Your task to perform on an android device: remove spam from my inbox in the gmail app Image 0: 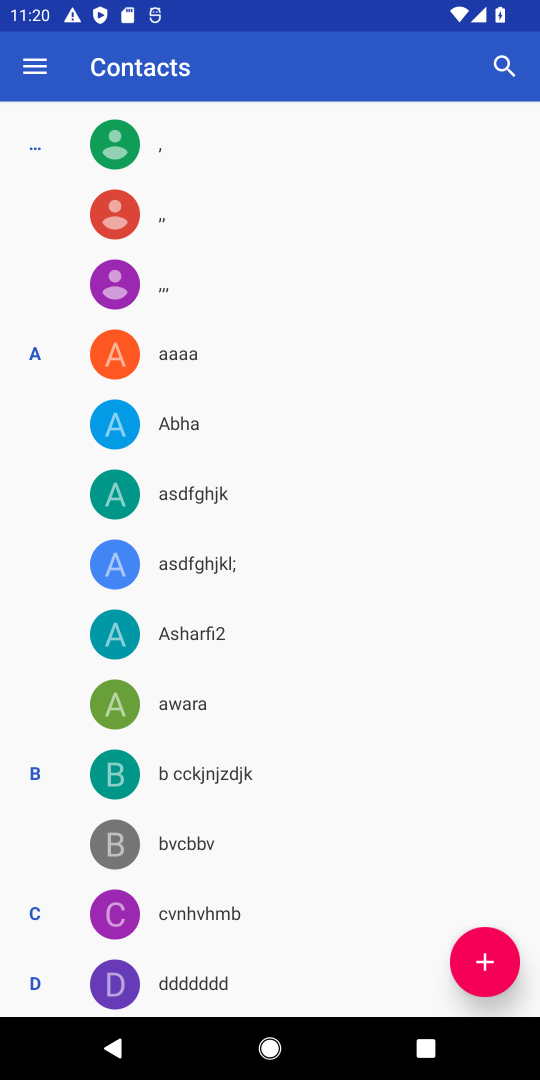
Step 0: press home button
Your task to perform on an android device: remove spam from my inbox in the gmail app Image 1: 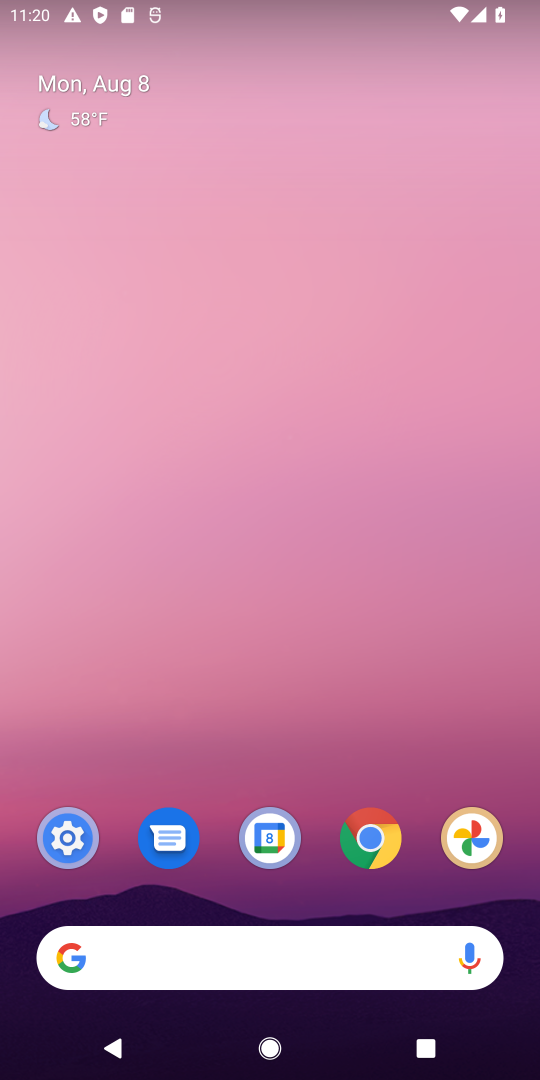
Step 1: drag from (331, 900) to (309, 340)
Your task to perform on an android device: remove spam from my inbox in the gmail app Image 2: 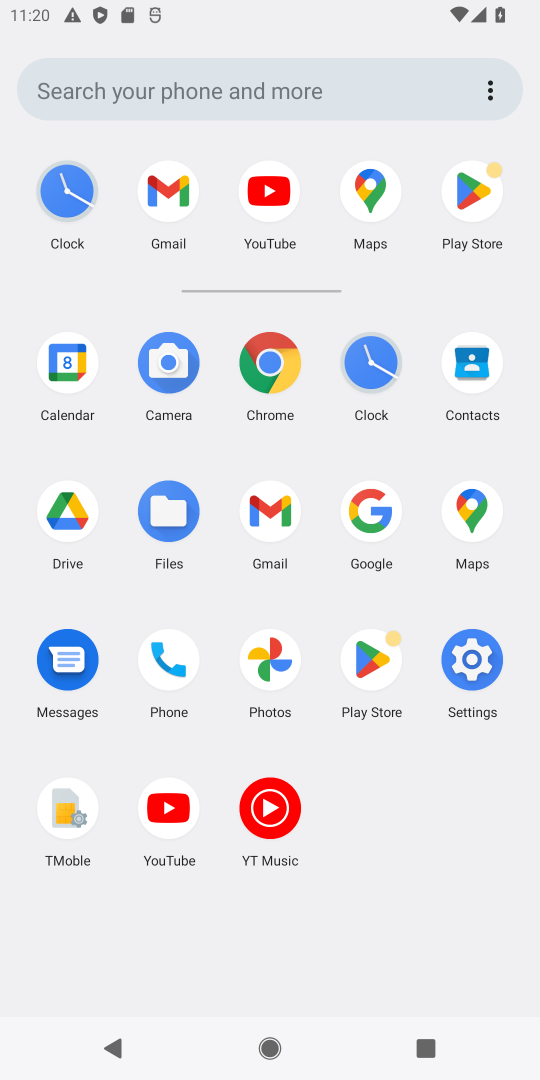
Step 2: click (171, 191)
Your task to perform on an android device: remove spam from my inbox in the gmail app Image 3: 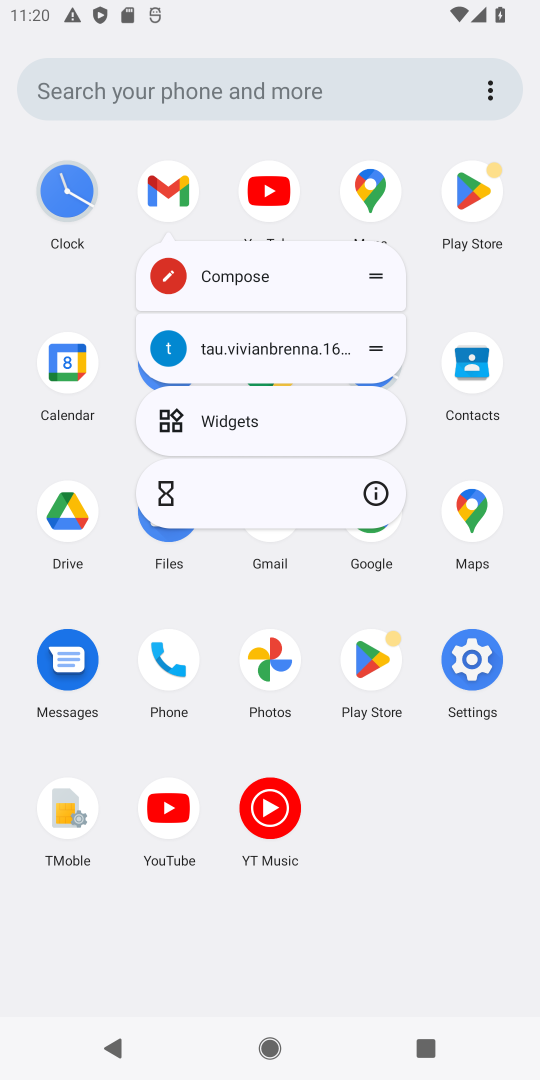
Step 3: click (171, 189)
Your task to perform on an android device: remove spam from my inbox in the gmail app Image 4: 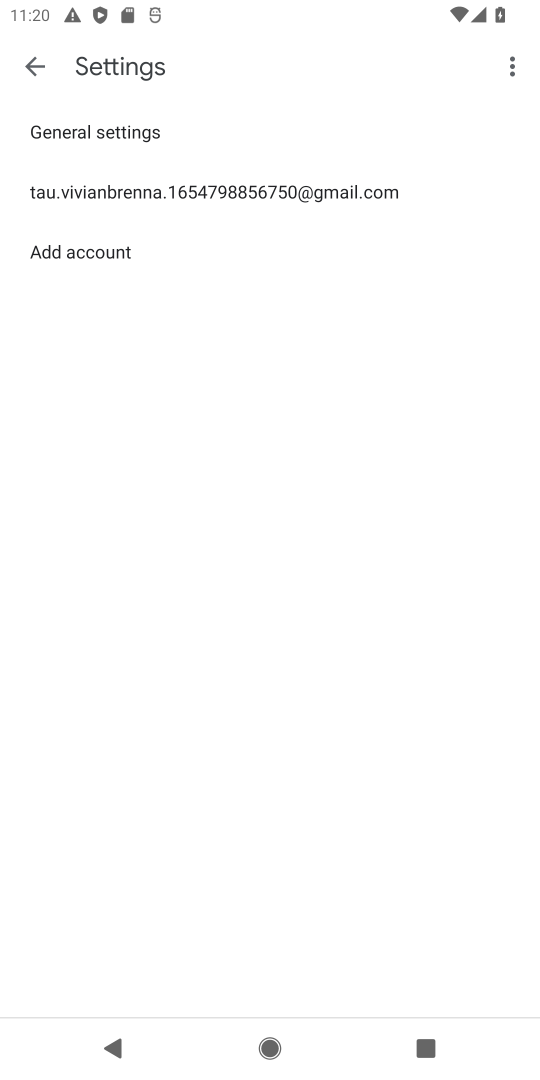
Step 4: click (40, 61)
Your task to perform on an android device: remove spam from my inbox in the gmail app Image 5: 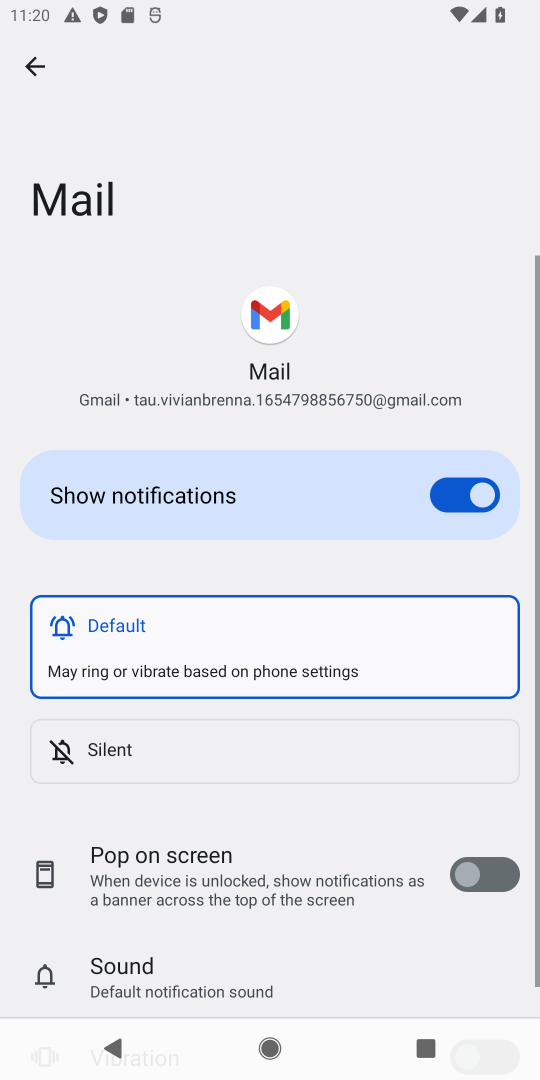
Step 5: click (39, 67)
Your task to perform on an android device: remove spam from my inbox in the gmail app Image 6: 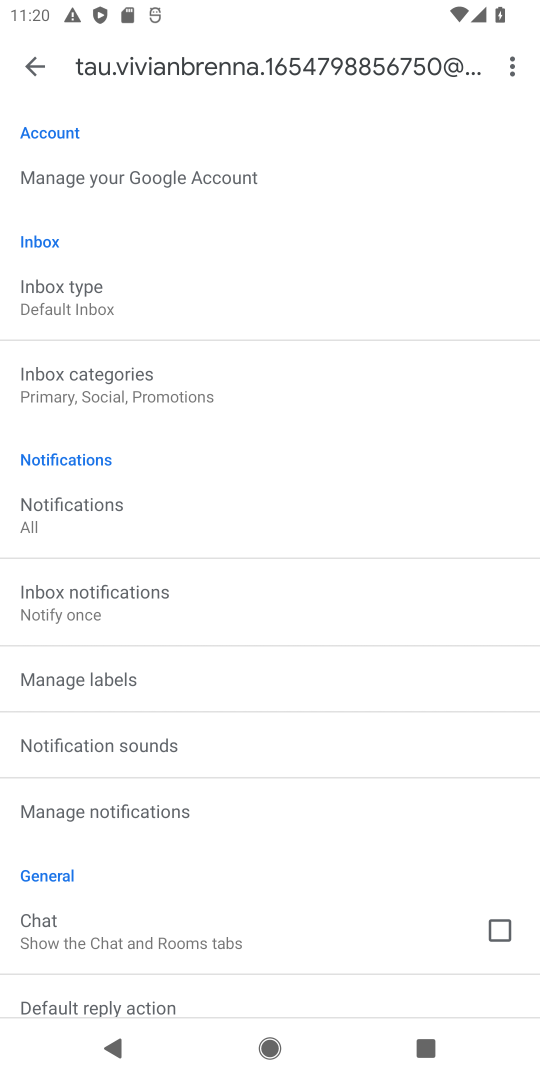
Step 6: click (39, 66)
Your task to perform on an android device: remove spam from my inbox in the gmail app Image 7: 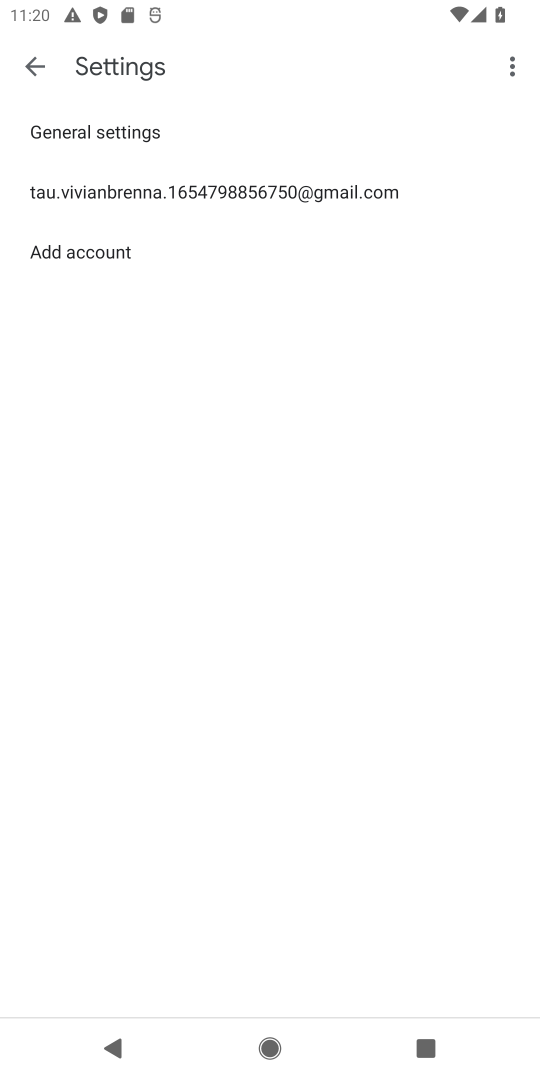
Step 7: click (39, 66)
Your task to perform on an android device: remove spam from my inbox in the gmail app Image 8: 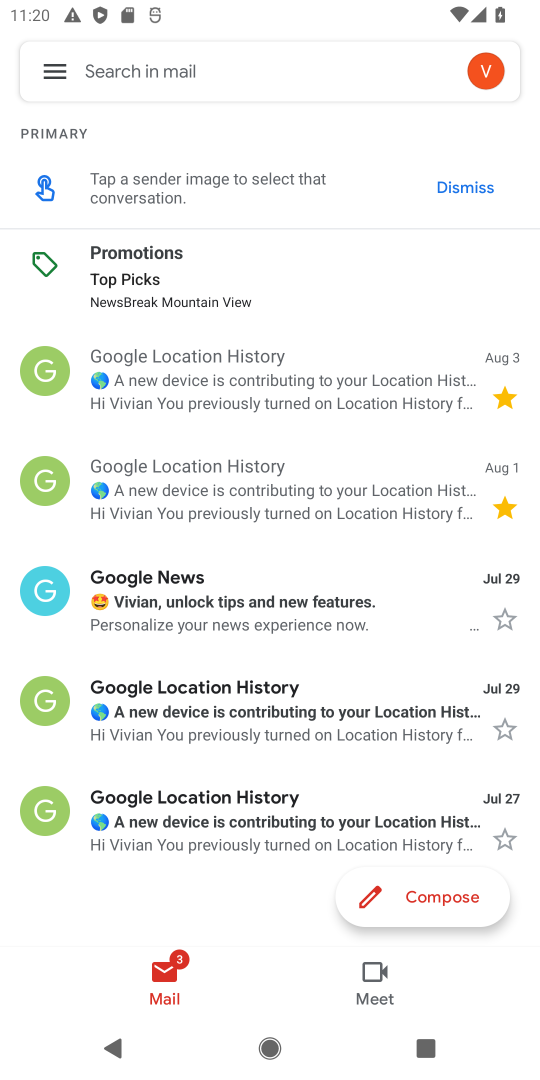
Step 8: click (44, 69)
Your task to perform on an android device: remove spam from my inbox in the gmail app Image 9: 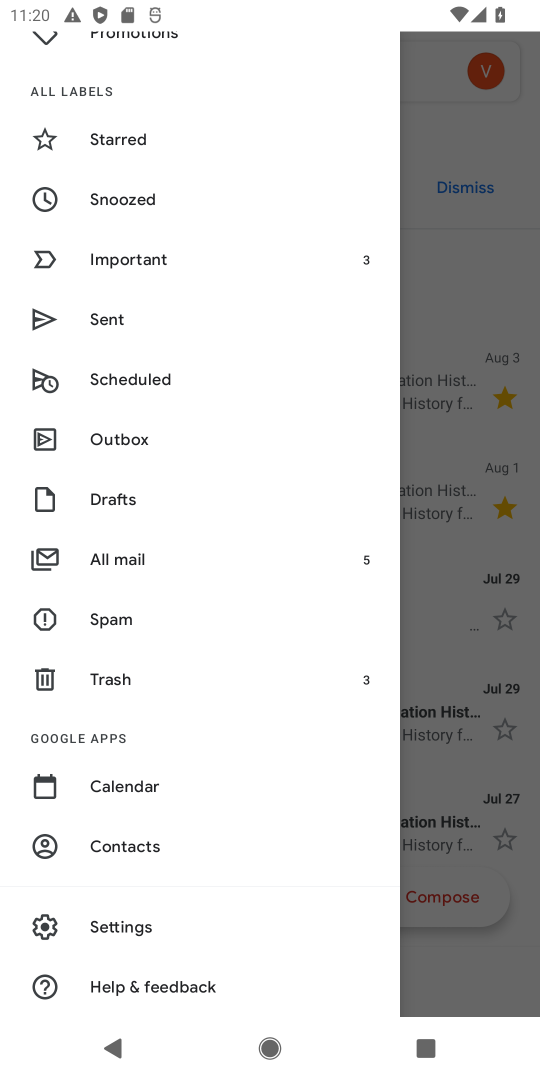
Step 9: click (119, 620)
Your task to perform on an android device: remove spam from my inbox in the gmail app Image 10: 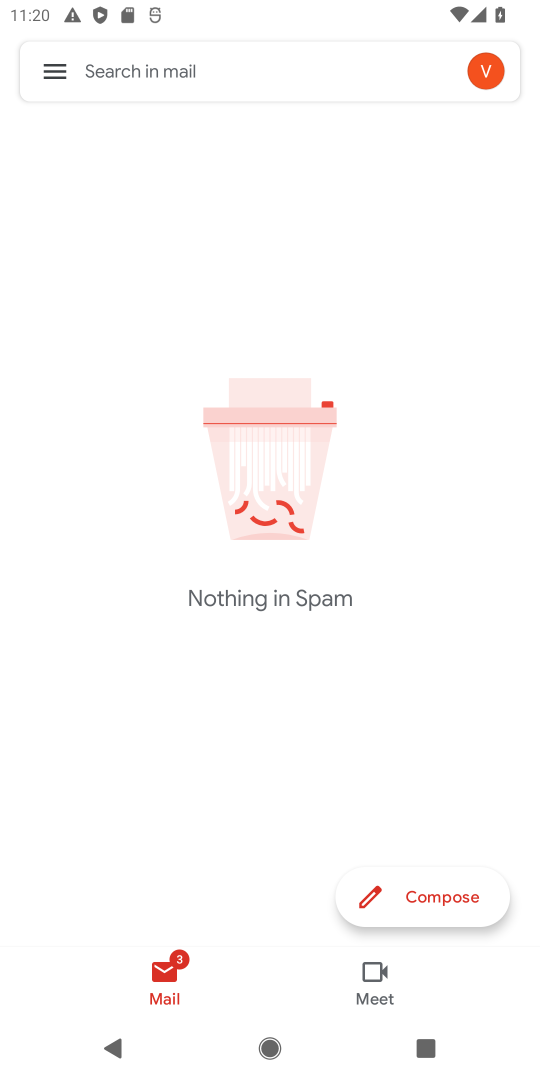
Step 10: task complete